Your task to perform on an android device: Open calendar and show me the second week of next month Image 0: 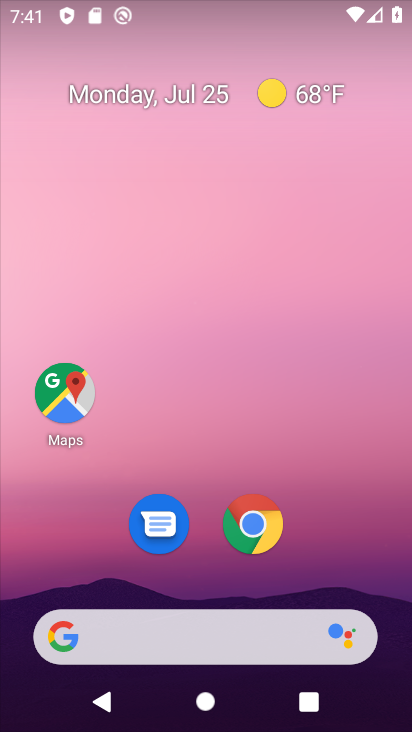
Step 0: drag from (348, 583) to (318, 25)
Your task to perform on an android device: Open calendar and show me the second week of next month Image 1: 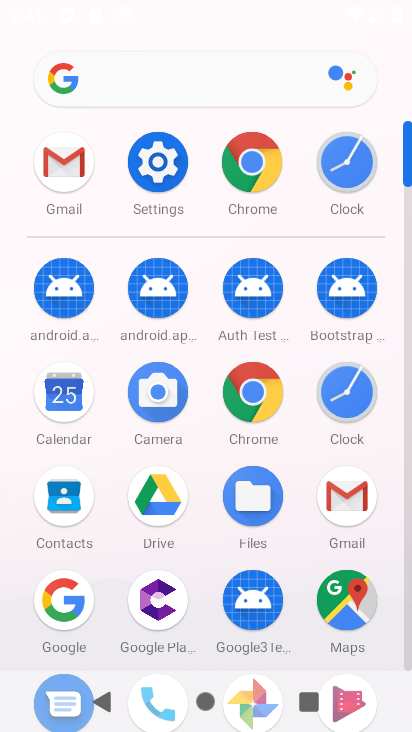
Step 1: click (65, 391)
Your task to perform on an android device: Open calendar and show me the second week of next month Image 2: 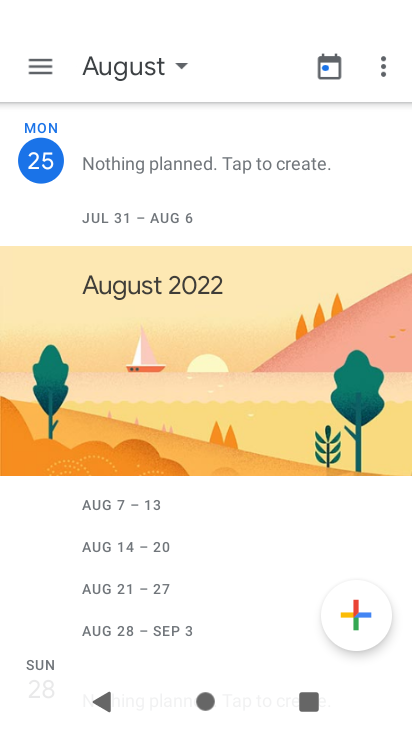
Step 2: click (32, 62)
Your task to perform on an android device: Open calendar and show me the second week of next month Image 3: 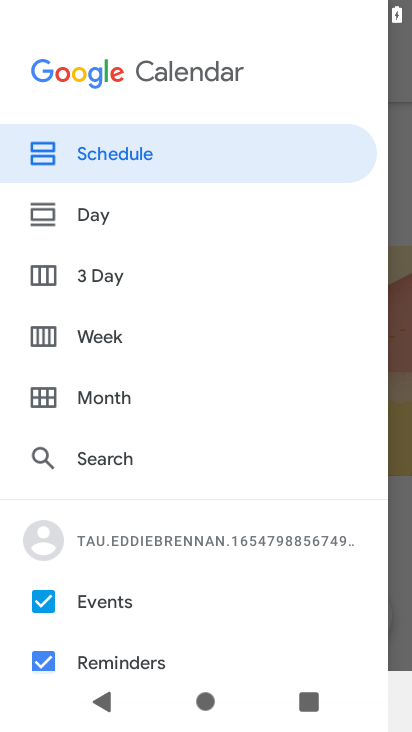
Step 3: click (46, 338)
Your task to perform on an android device: Open calendar and show me the second week of next month Image 4: 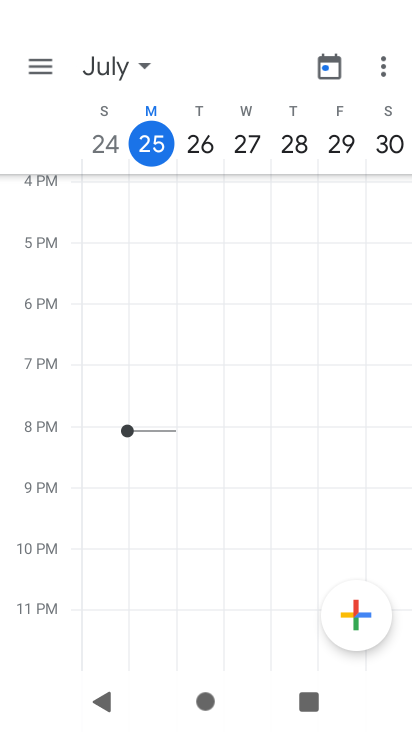
Step 4: task complete